Your task to perform on an android device: Open network settings Image 0: 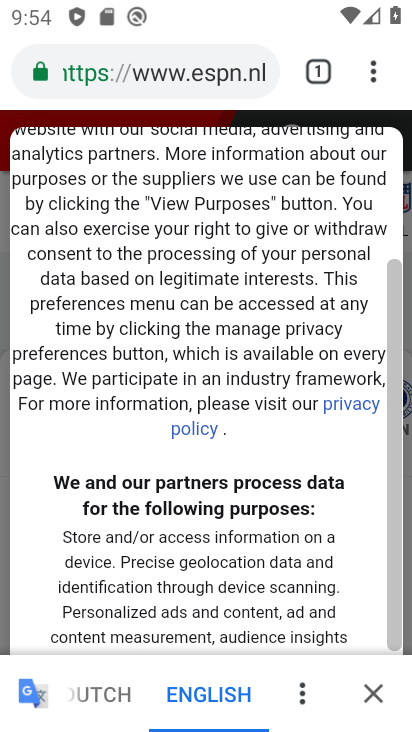
Step 0: press back button
Your task to perform on an android device: Open network settings Image 1: 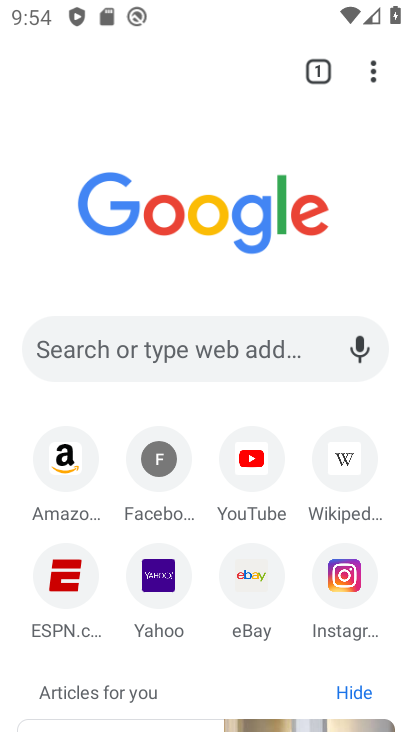
Step 1: press home button
Your task to perform on an android device: Open network settings Image 2: 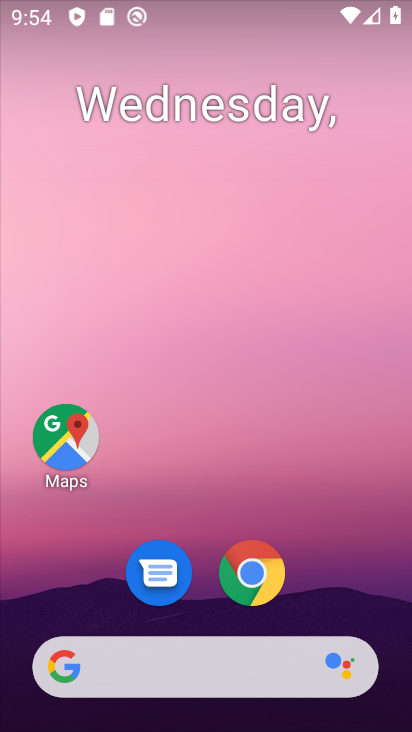
Step 2: drag from (359, 580) to (358, 125)
Your task to perform on an android device: Open network settings Image 3: 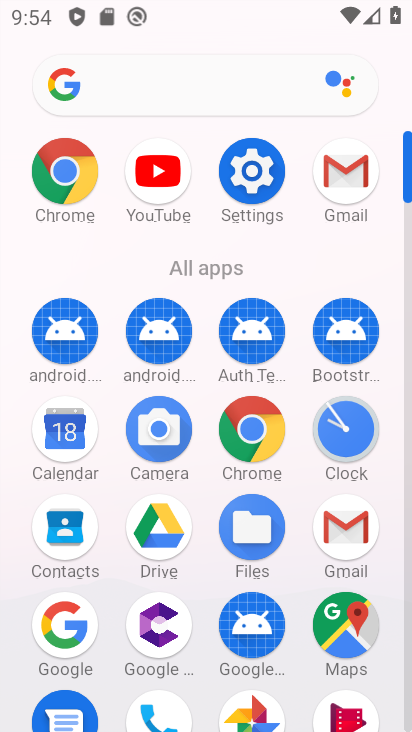
Step 3: click (266, 188)
Your task to perform on an android device: Open network settings Image 4: 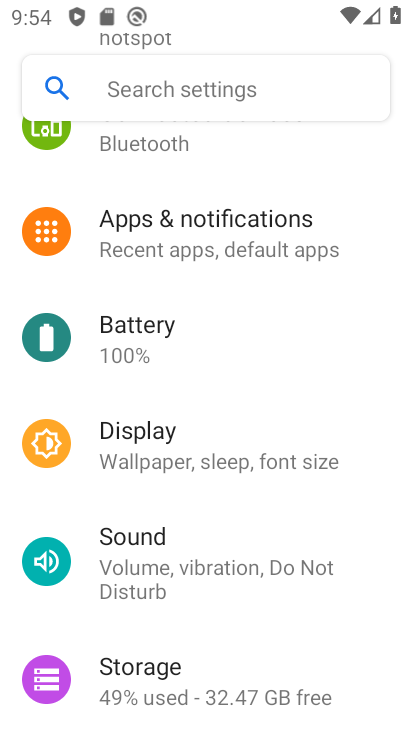
Step 4: drag from (343, 646) to (360, 500)
Your task to perform on an android device: Open network settings Image 5: 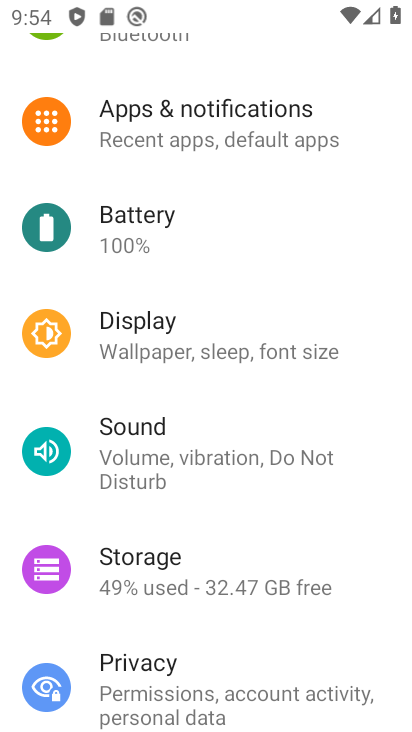
Step 5: drag from (363, 656) to (350, 545)
Your task to perform on an android device: Open network settings Image 6: 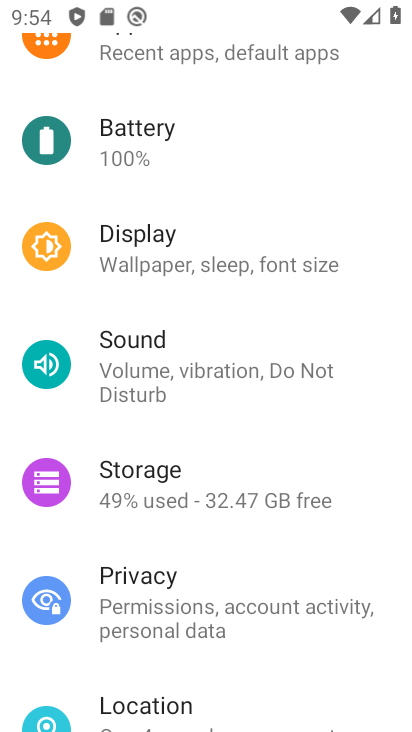
Step 6: drag from (341, 677) to (348, 547)
Your task to perform on an android device: Open network settings Image 7: 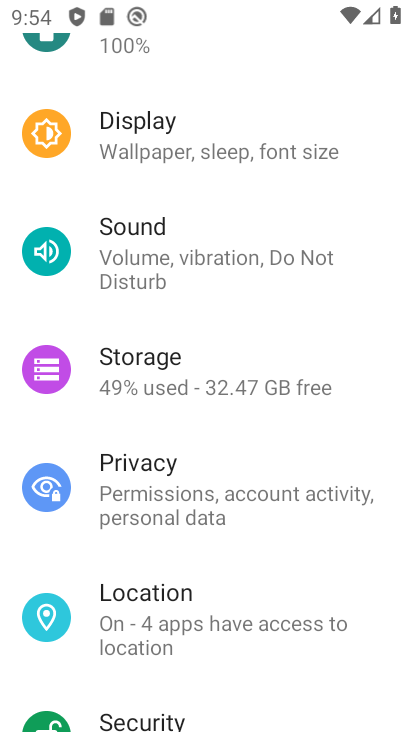
Step 7: drag from (324, 698) to (326, 532)
Your task to perform on an android device: Open network settings Image 8: 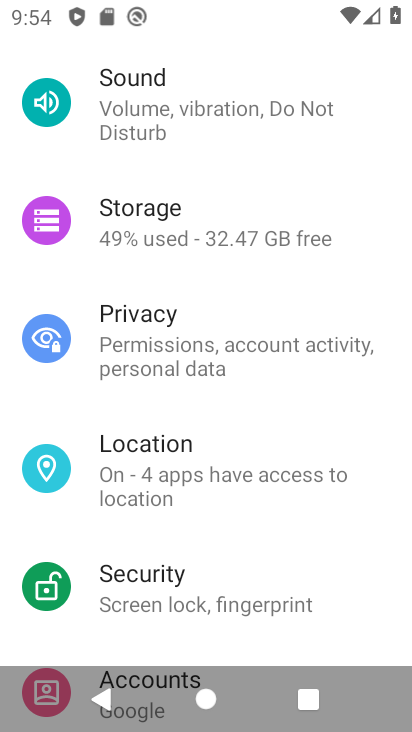
Step 8: drag from (340, 626) to (333, 436)
Your task to perform on an android device: Open network settings Image 9: 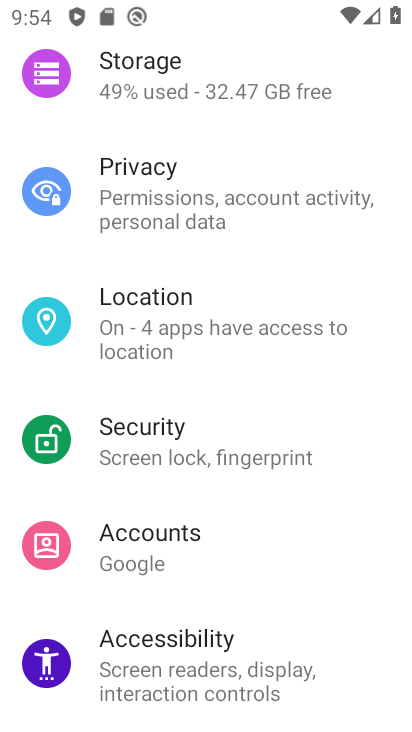
Step 9: drag from (354, 635) to (350, 485)
Your task to perform on an android device: Open network settings Image 10: 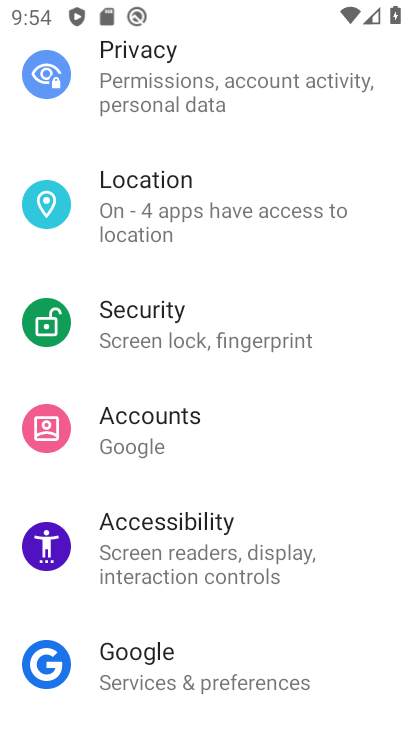
Step 10: drag from (347, 607) to (353, 411)
Your task to perform on an android device: Open network settings Image 11: 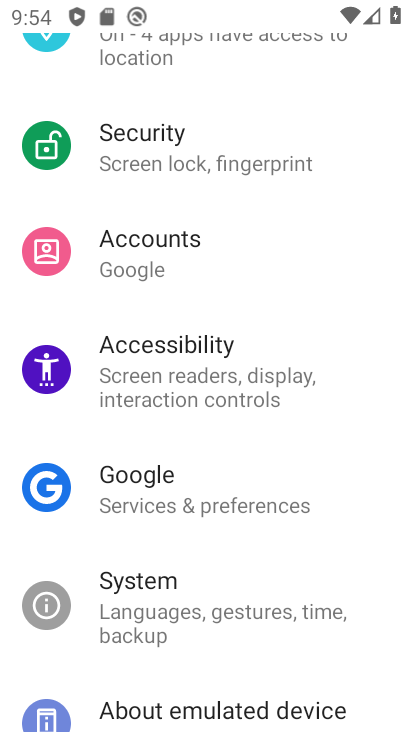
Step 11: drag from (361, 645) to (363, 431)
Your task to perform on an android device: Open network settings Image 12: 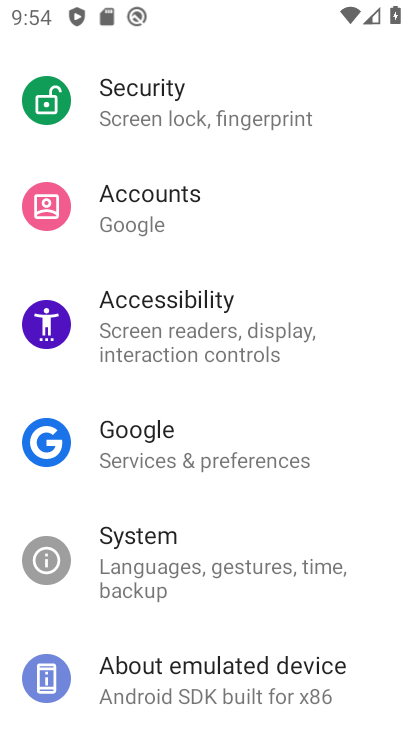
Step 12: drag from (363, 296) to (374, 455)
Your task to perform on an android device: Open network settings Image 13: 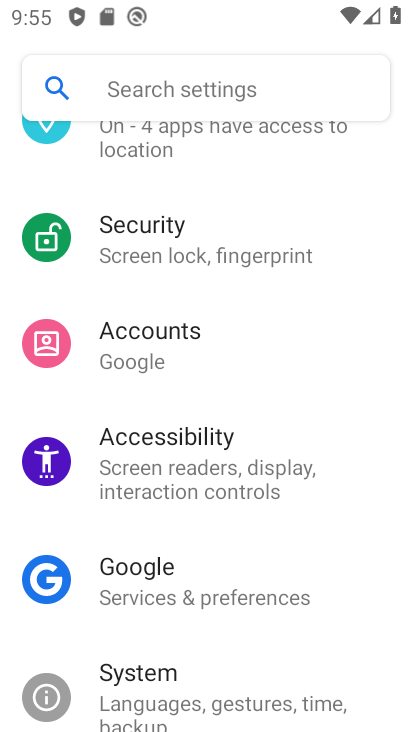
Step 13: drag from (362, 286) to (381, 472)
Your task to perform on an android device: Open network settings Image 14: 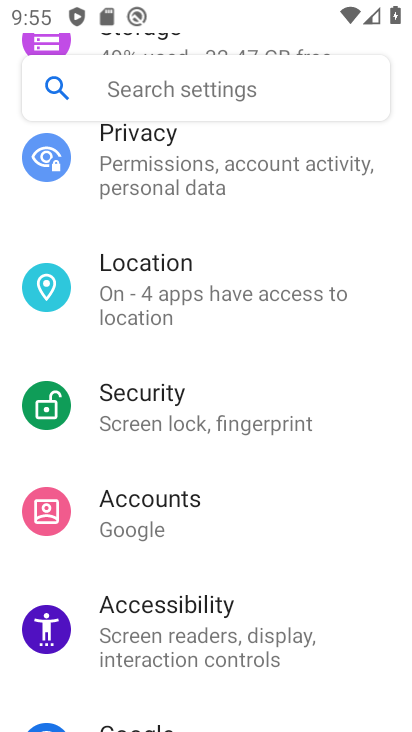
Step 14: drag from (362, 223) to (329, 451)
Your task to perform on an android device: Open network settings Image 15: 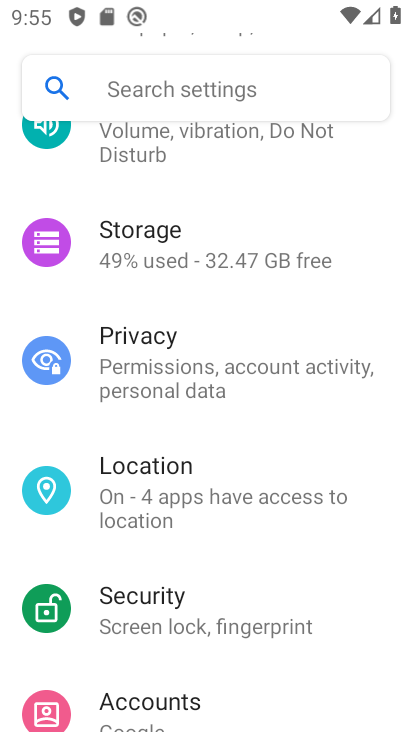
Step 15: drag from (340, 211) to (347, 395)
Your task to perform on an android device: Open network settings Image 16: 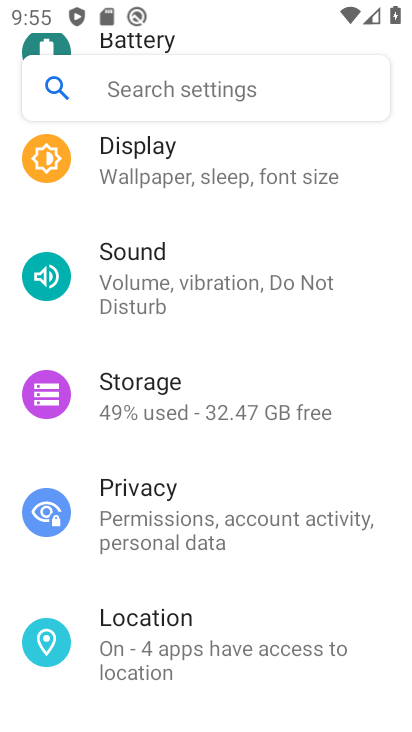
Step 16: drag from (360, 218) to (345, 408)
Your task to perform on an android device: Open network settings Image 17: 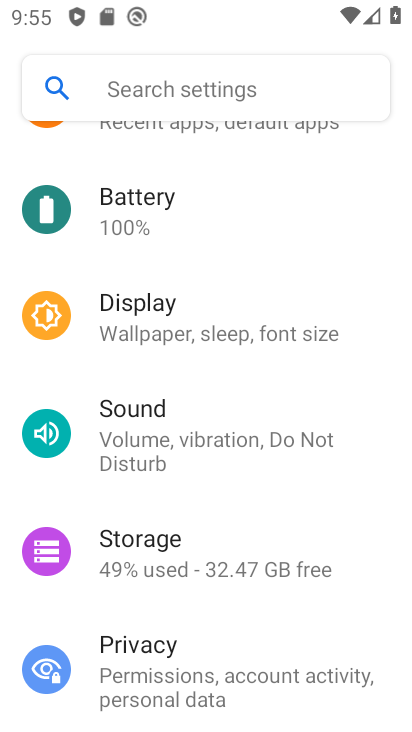
Step 17: drag from (350, 237) to (350, 406)
Your task to perform on an android device: Open network settings Image 18: 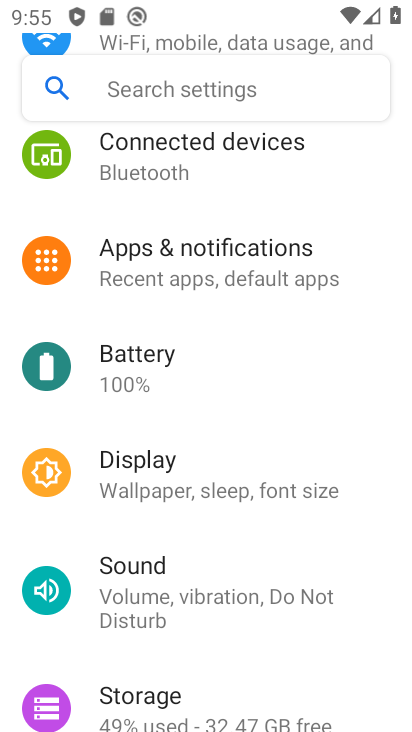
Step 18: drag from (362, 209) to (347, 365)
Your task to perform on an android device: Open network settings Image 19: 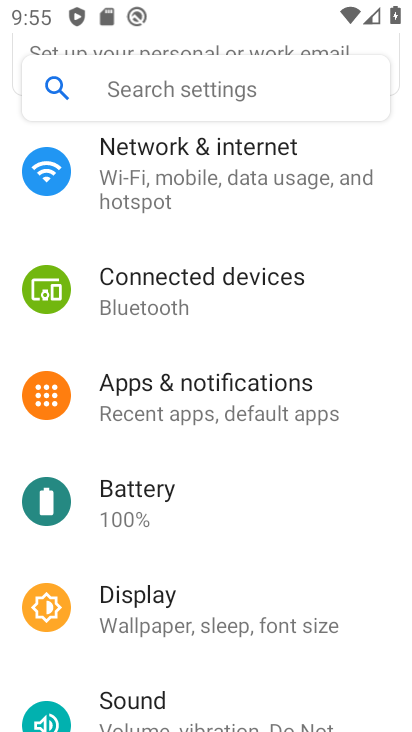
Step 19: drag from (349, 149) to (350, 344)
Your task to perform on an android device: Open network settings Image 20: 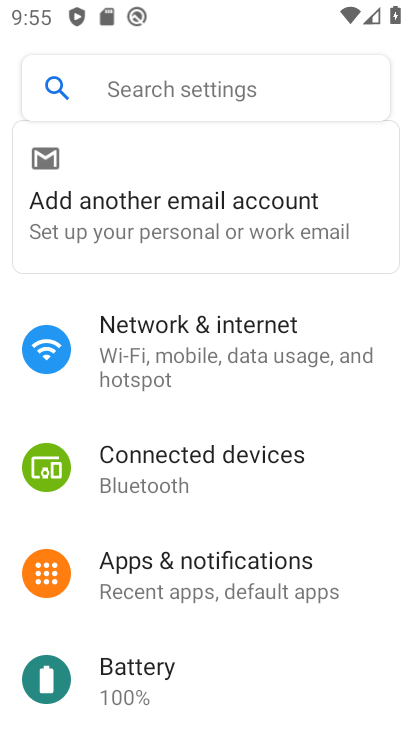
Step 20: click (298, 351)
Your task to perform on an android device: Open network settings Image 21: 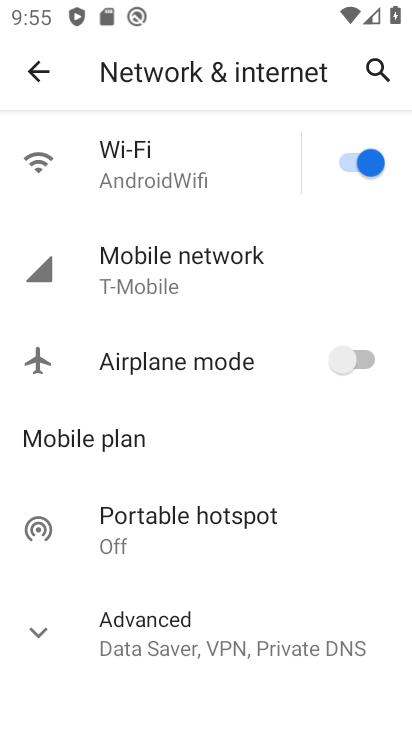
Step 21: task complete